Your task to perform on an android device: turn off picture-in-picture Image 0: 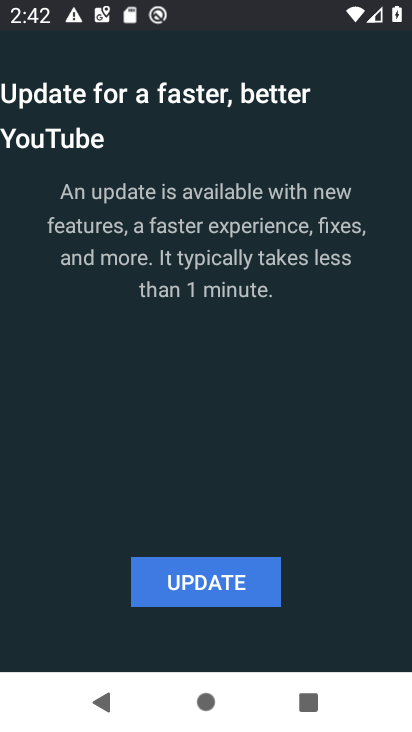
Step 0: press home button
Your task to perform on an android device: turn off picture-in-picture Image 1: 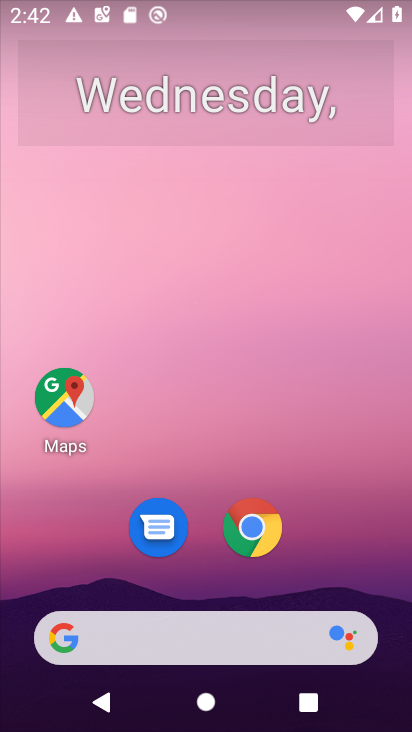
Step 1: drag from (339, 557) to (329, 116)
Your task to perform on an android device: turn off picture-in-picture Image 2: 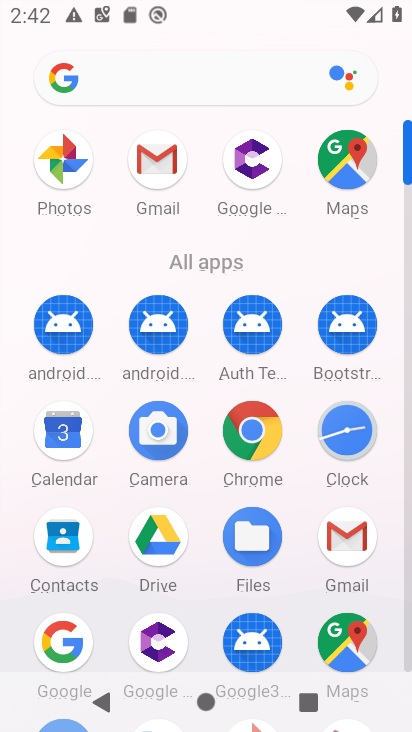
Step 2: click (251, 420)
Your task to perform on an android device: turn off picture-in-picture Image 3: 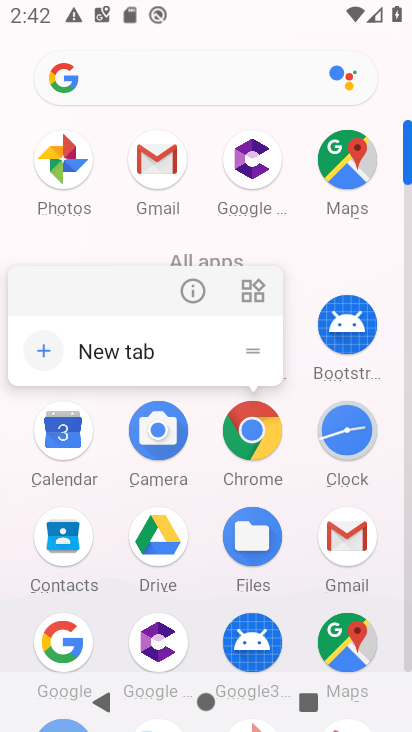
Step 3: click (200, 286)
Your task to perform on an android device: turn off picture-in-picture Image 4: 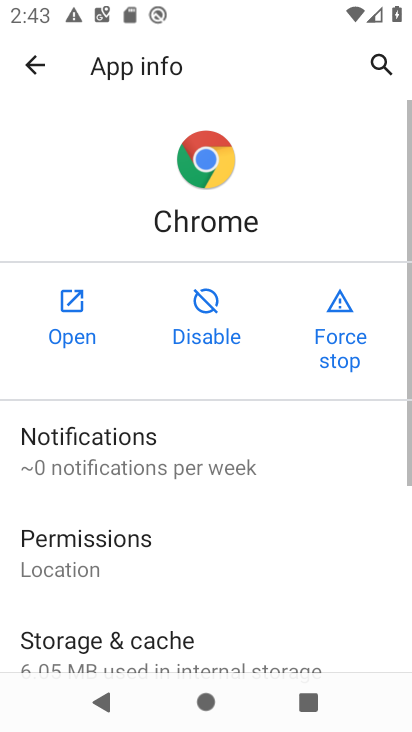
Step 4: drag from (279, 588) to (298, 191)
Your task to perform on an android device: turn off picture-in-picture Image 5: 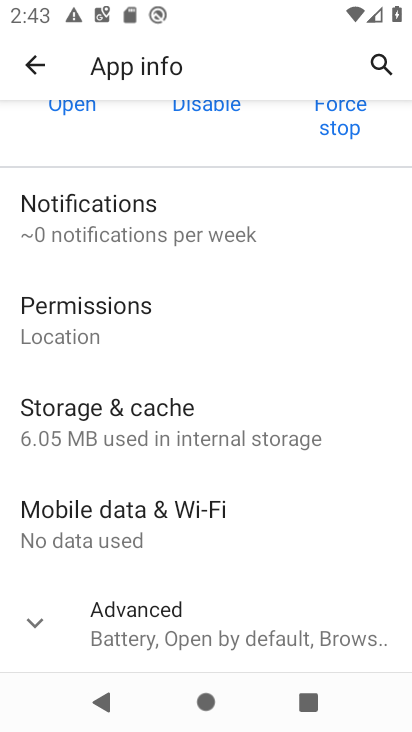
Step 5: drag from (261, 537) to (328, 195)
Your task to perform on an android device: turn off picture-in-picture Image 6: 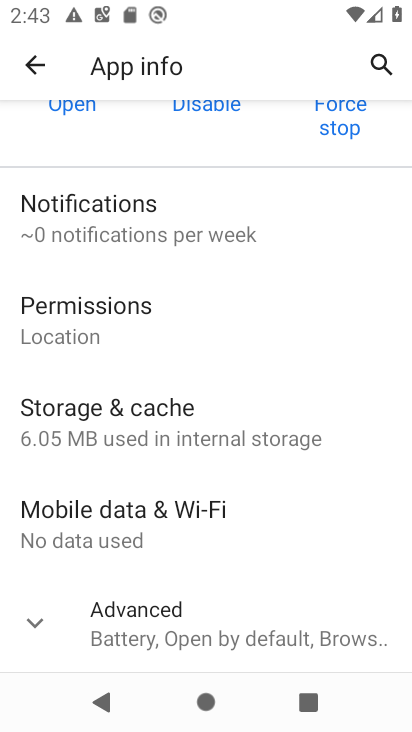
Step 6: click (149, 611)
Your task to perform on an android device: turn off picture-in-picture Image 7: 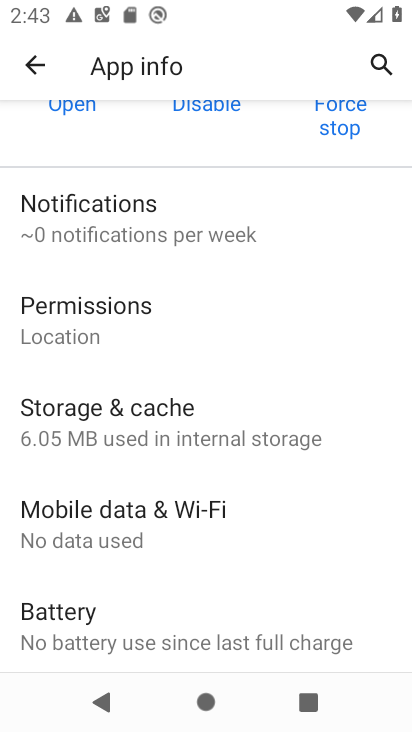
Step 7: drag from (301, 580) to (375, 151)
Your task to perform on an android device: turn off picture-in-picture Image 8: 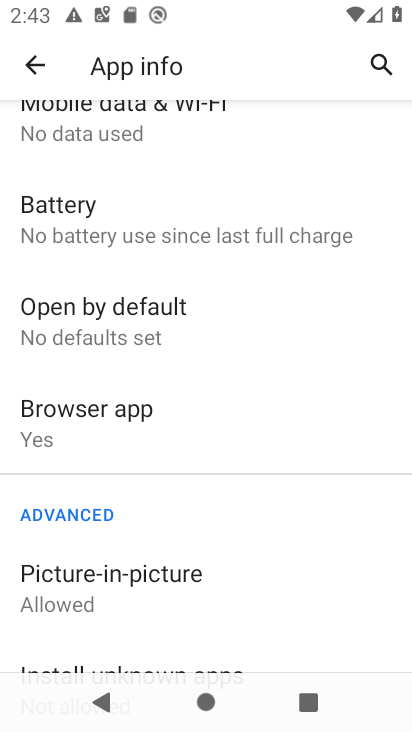
Step 8: click (157, 583)
Your task to perform on an android device: turn off picture-in-picture Image 9: 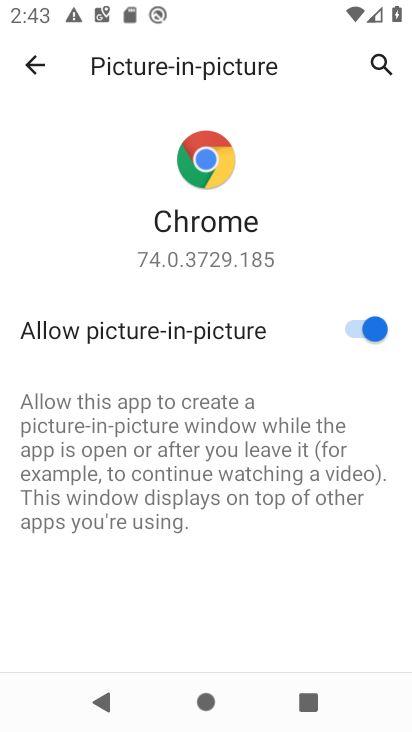
Step 9: click (347, 329)
Your task to perform on an android device: turn off picture-in-picture Image 10: 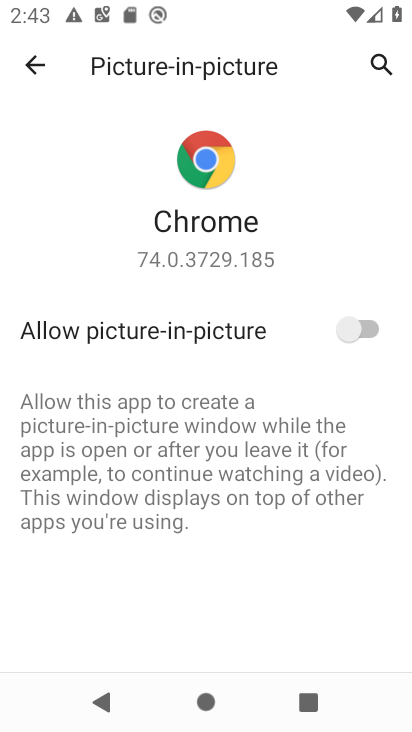
Step 10: task complete